Your task to perform on an android device: Go to Yahoo.com Image 0: 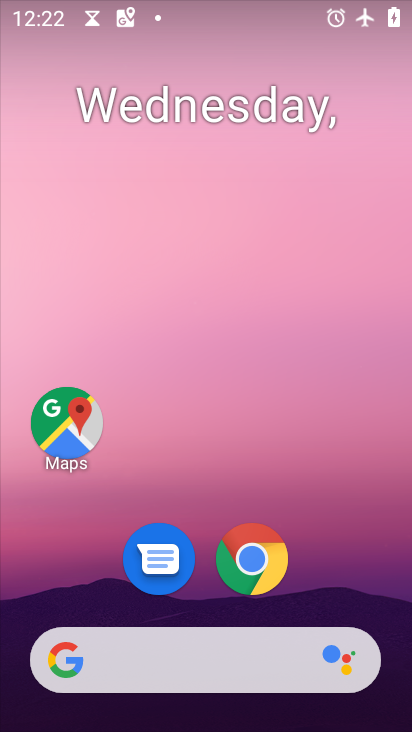
Step 0: click (255, 547)
Your task to perform on an android device: Go to Yahoo.com Image 1: 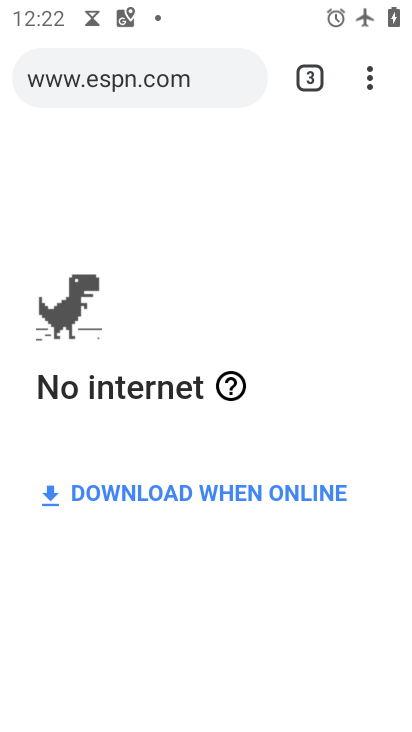
Step 1: click (169, 80)
Your task to perform on an android device: Go to Yahoo.com Image 2: 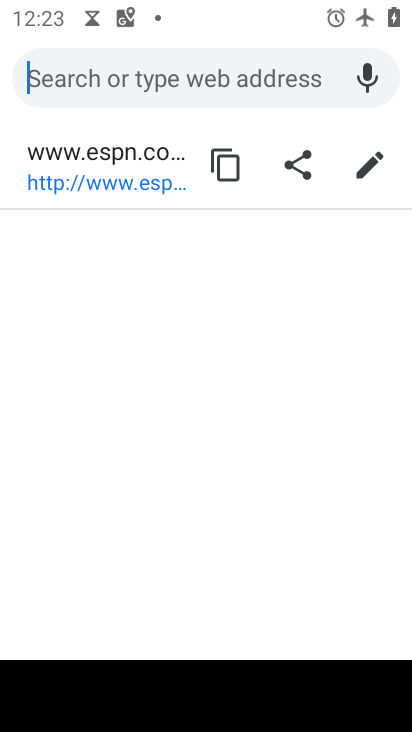
Step 2: type "yahoo"
Your task to perform on an android device: Go to Yahoo.com Image 3: 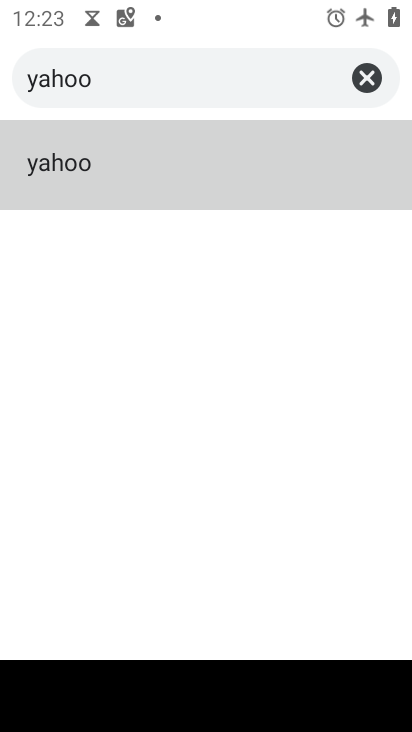
Step 3: click (52, 150)
Your task to perform on an android device: Go to Yahoo.com Image 4: 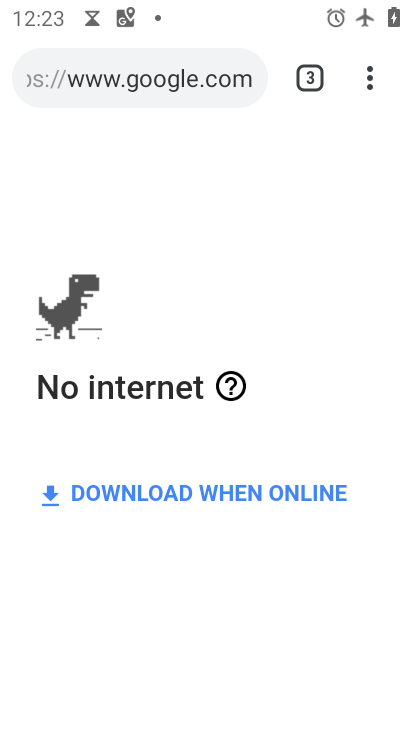
Step 4: task complete